Your task to perform on an android device: Open network settings Image 0: 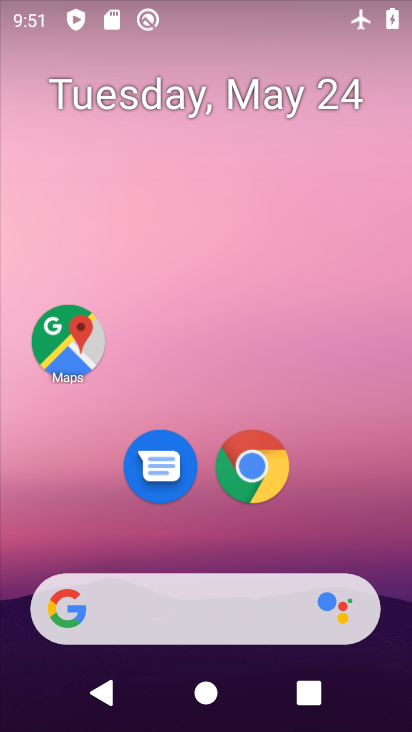
Step 0: drag from (207, 557) to (244, 0)
Your task to perform on an android device: Open network settings Image 1: 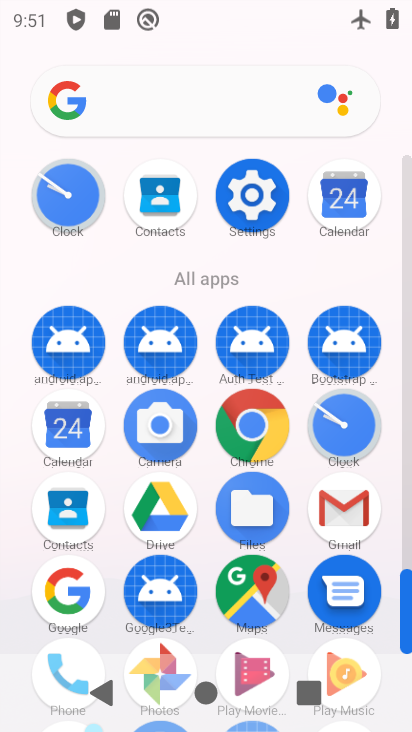
Step 1: click (246, 216)
Your task to perform on an android device: Open network settings Image 2: 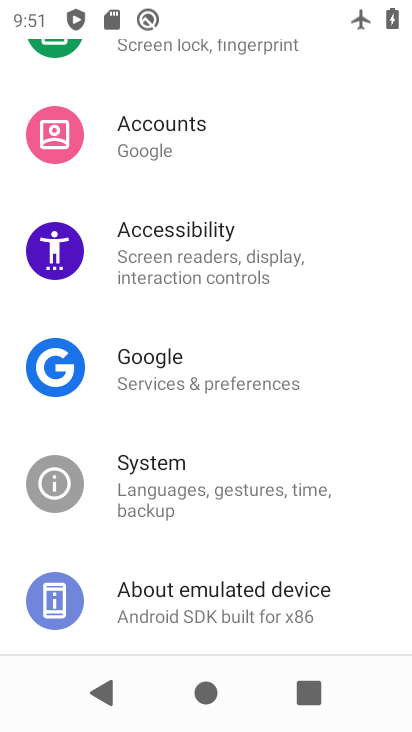
Step 2: drag from (255, 237) to (259, 727)
Your task to perform on an android device: Open network settings Image 3: 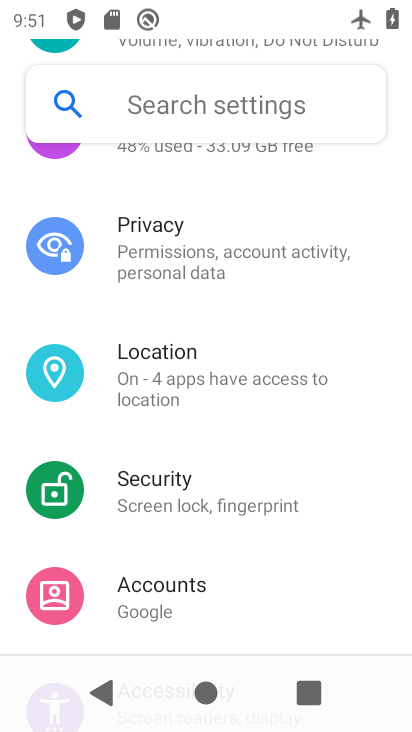
Step 3: drag from (270, 218) to (255, 727)
Your task to perform on an android device: Open network settings Image 4: 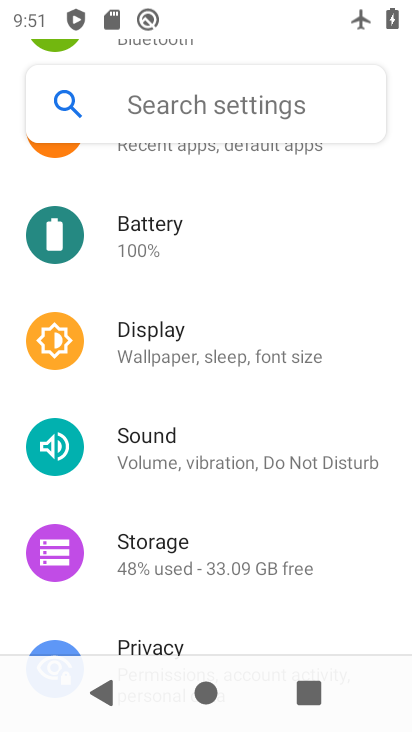
Step 4: drag from (175, 215) to (195, 579)
Your task to perform on an android device: Open network settings Image 5: 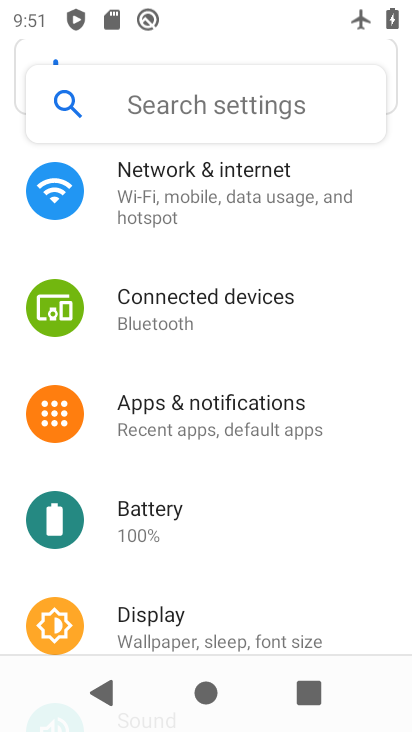
Step 5: drag from (225, 224) to (224, 449)
Your task to perform on an android device: Open network settings Image 6: 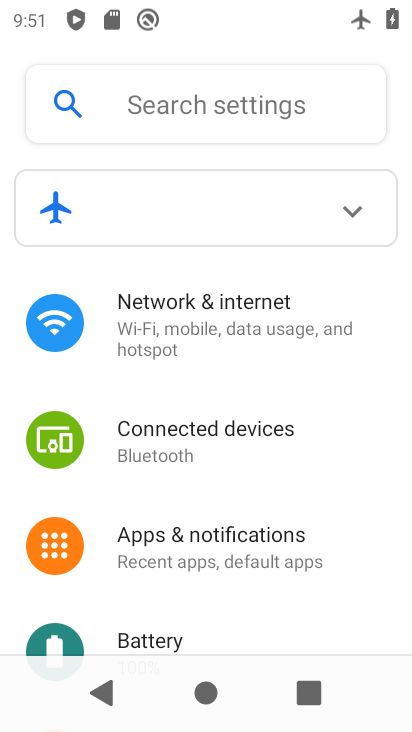
Step 6: click (228, 327)
Your task to perform on an android device: Open network settings Image 7: 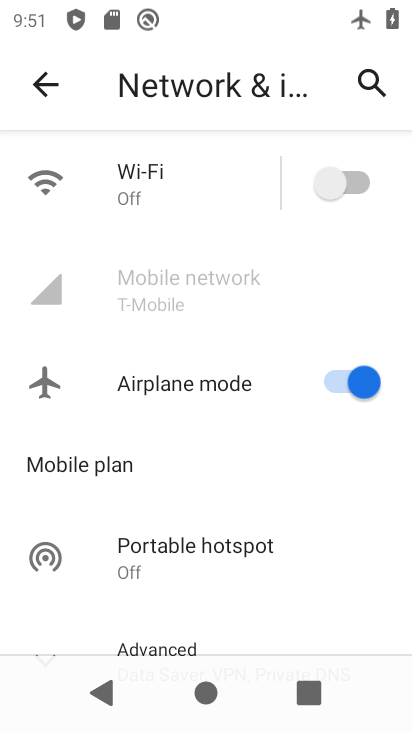
Step 7: task complete